Your task to perform on an android device: Open internet settings Image 0: 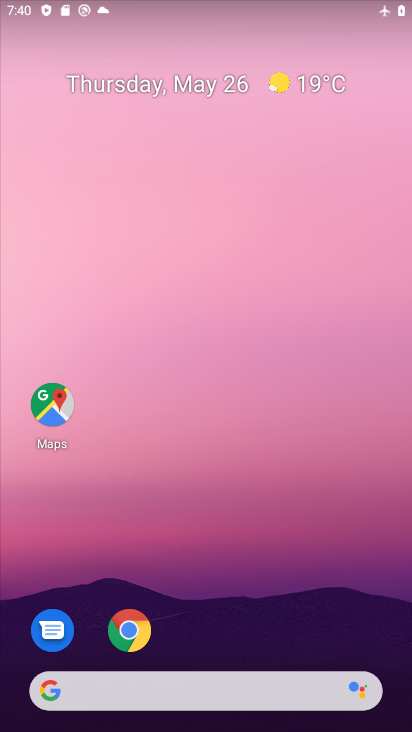
Step 0: drag from (323, 633) to (211, 194)
Your task to perform on an android device: Open internet settings Image 1: 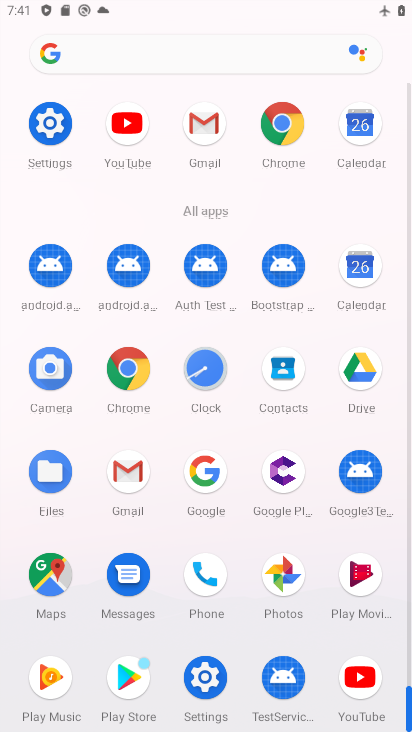
Step 1: click (49, 121)
Your task to perform on an android device: Open internet settings Image 2: 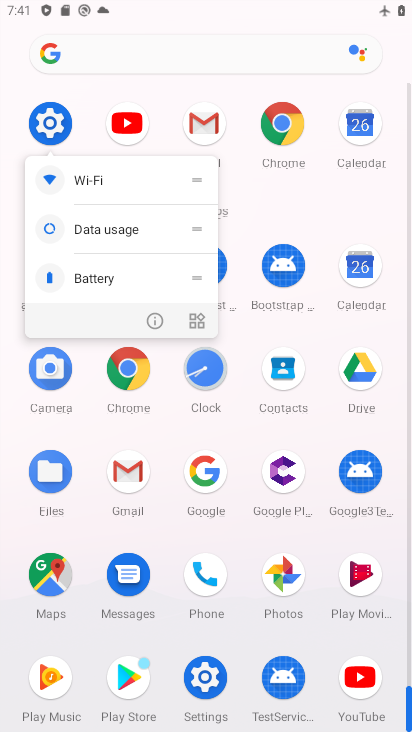
Step 2: click (48, 120)
Your task to perform on an android device: Open internet settings Image 3: 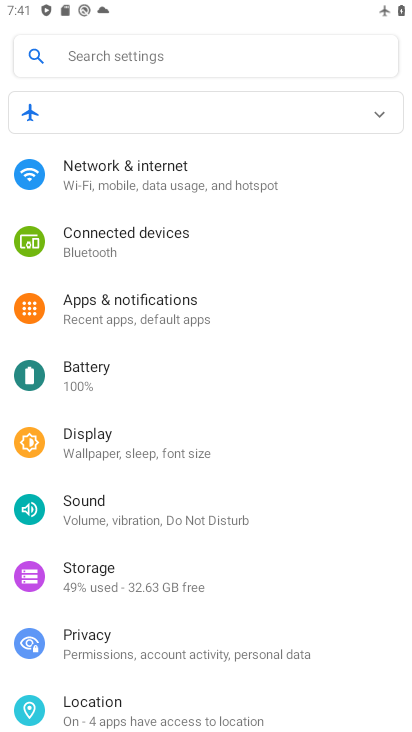
Step 3: click (126, 181)
Your task to perform on an android device: Open internet settings Image 4: 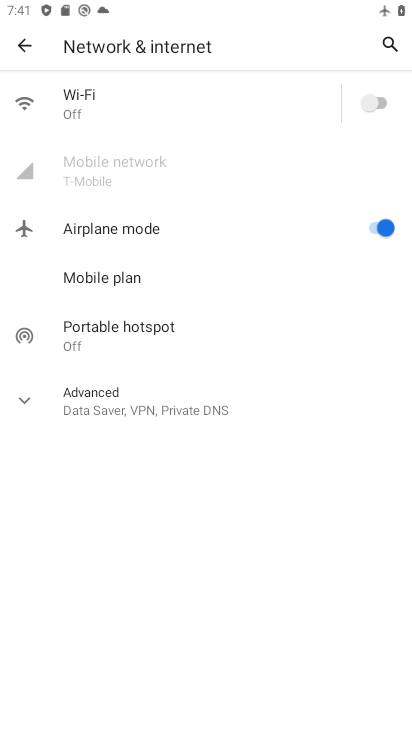
Step 4: task complete